Your task to perform on an android device: Search for sushi restaurants on Maps Image 0: 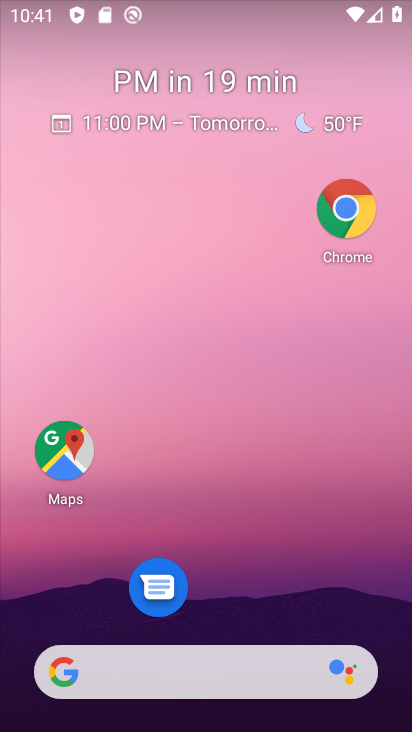
Step 0: drag from (202, 623) to (183, 6)
Your task to perform on an android device: Search for sushi restaurants on Maps Image 1: 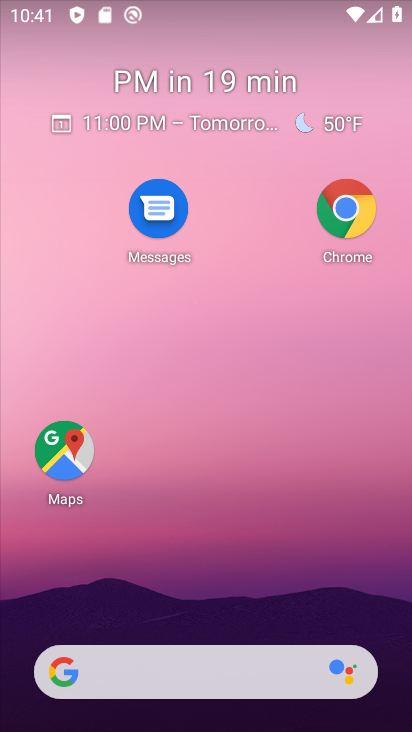
Step 1: click (90, 456)
Your task to perform on an android device: Search for sushi restaurants on Maps Image 2: 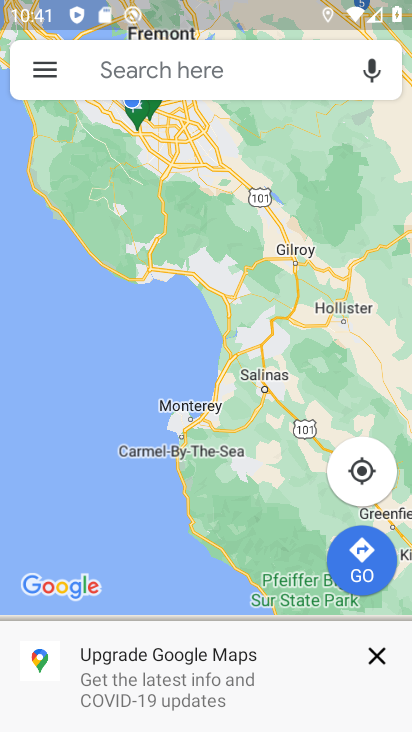
Step 2: click (169, 60)
Your task to perform on an android device: Search for sushi restaurants on Maps Image 3: 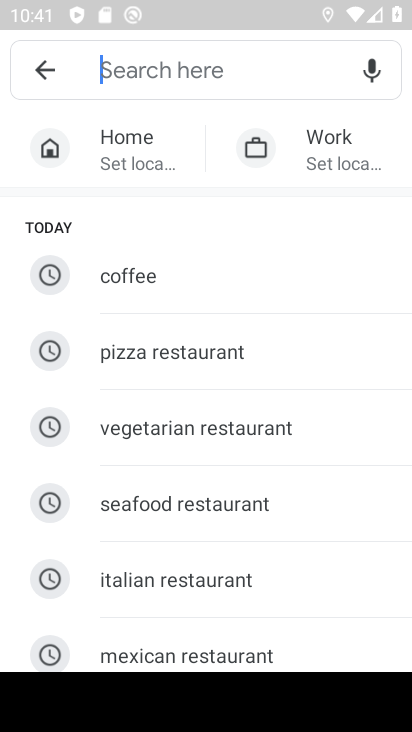
Step 3: drag from (199, 525) to (149, 119)
Your task to perform on an android device: Search for sushi restaurants on Maps Image 4: 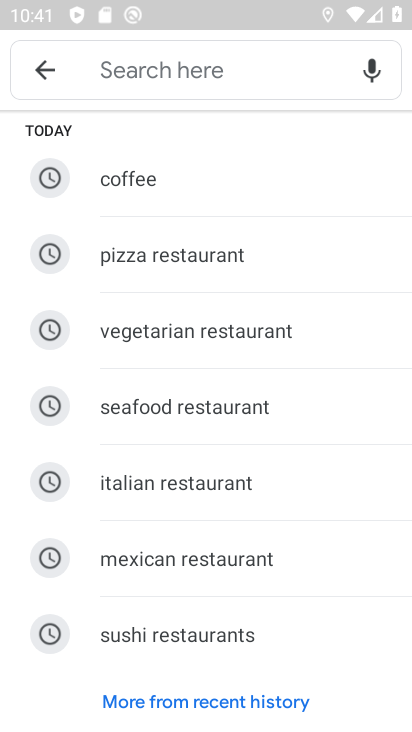
Step 4: click (166, 637)
Your task to perform on an android device: Search for sushi restaurants on Maps Image 5: 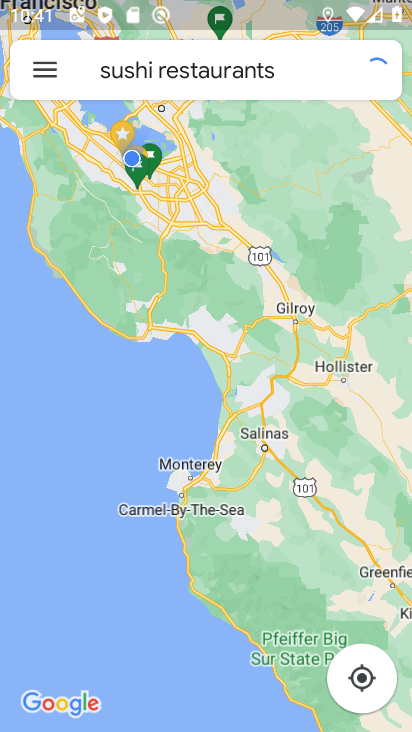
Step 5: task complete